Your task to perform on an android device: see sites visited before in the chrome app Image 0: 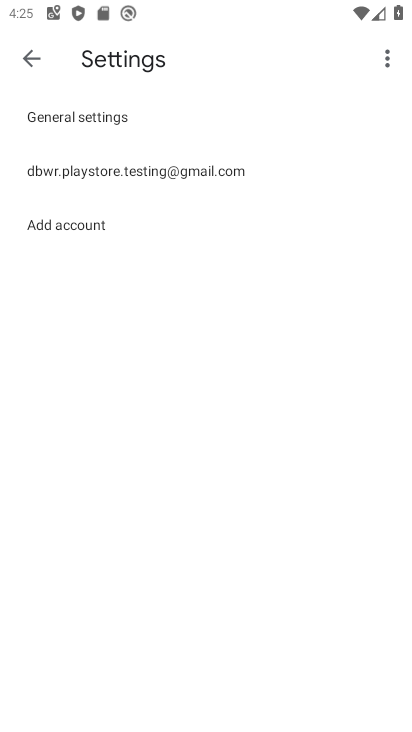
Step 0: press home button
Your task to perform on an android device: see sites visited before in the chrome app Image 1: 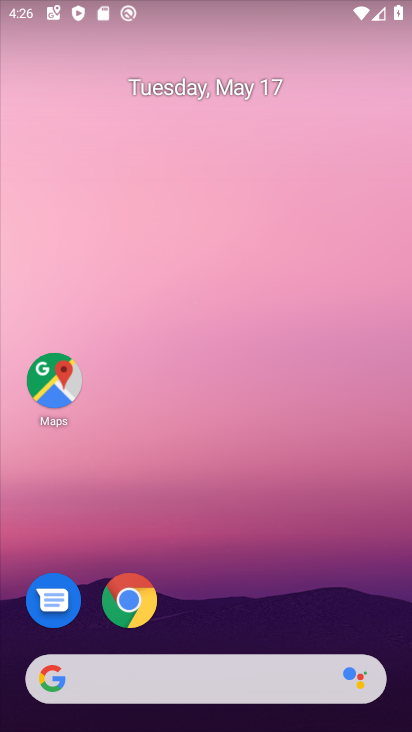
Step 1: click (136, 606)
Your task to perform on an android device: see sites visited before in the chrome app Image 2: 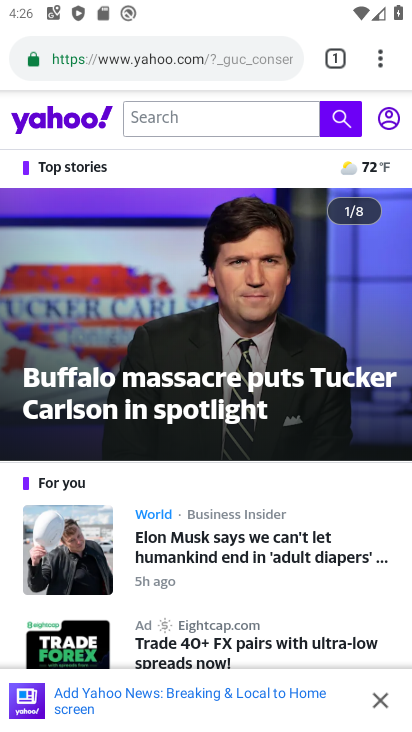
Step 2: click (378, 63)
Your task to perform on an android device: see sites visited before in the chrome app Image 3: 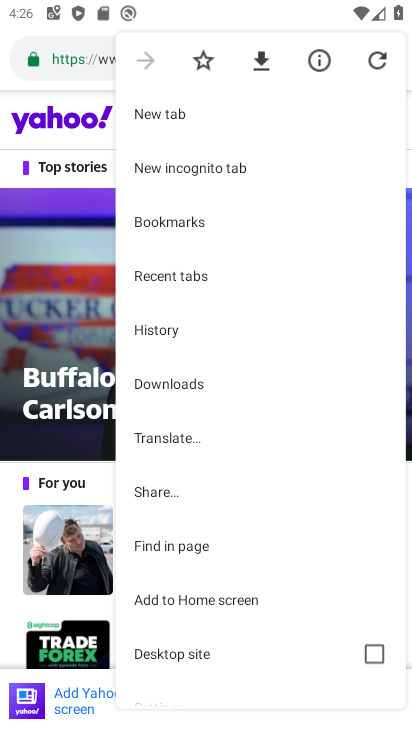
Step 3: click (164, 316)
Your task to perform on an android device: see sites visited before in the chrome app Image 4: 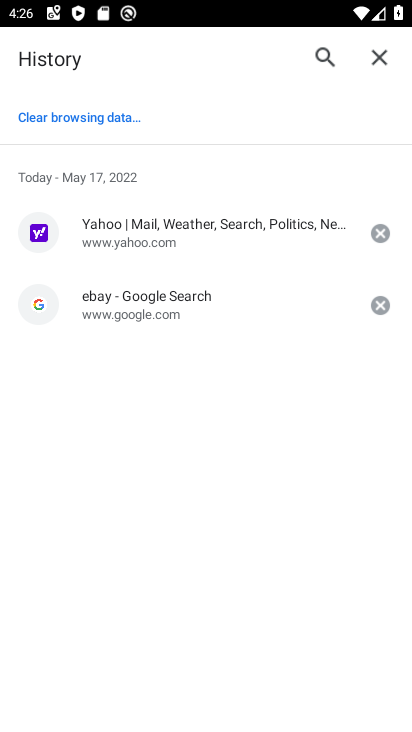
Step 4: task complete